Your task to perform on an android device: Check the settings for the Amazon Music app Image 0: 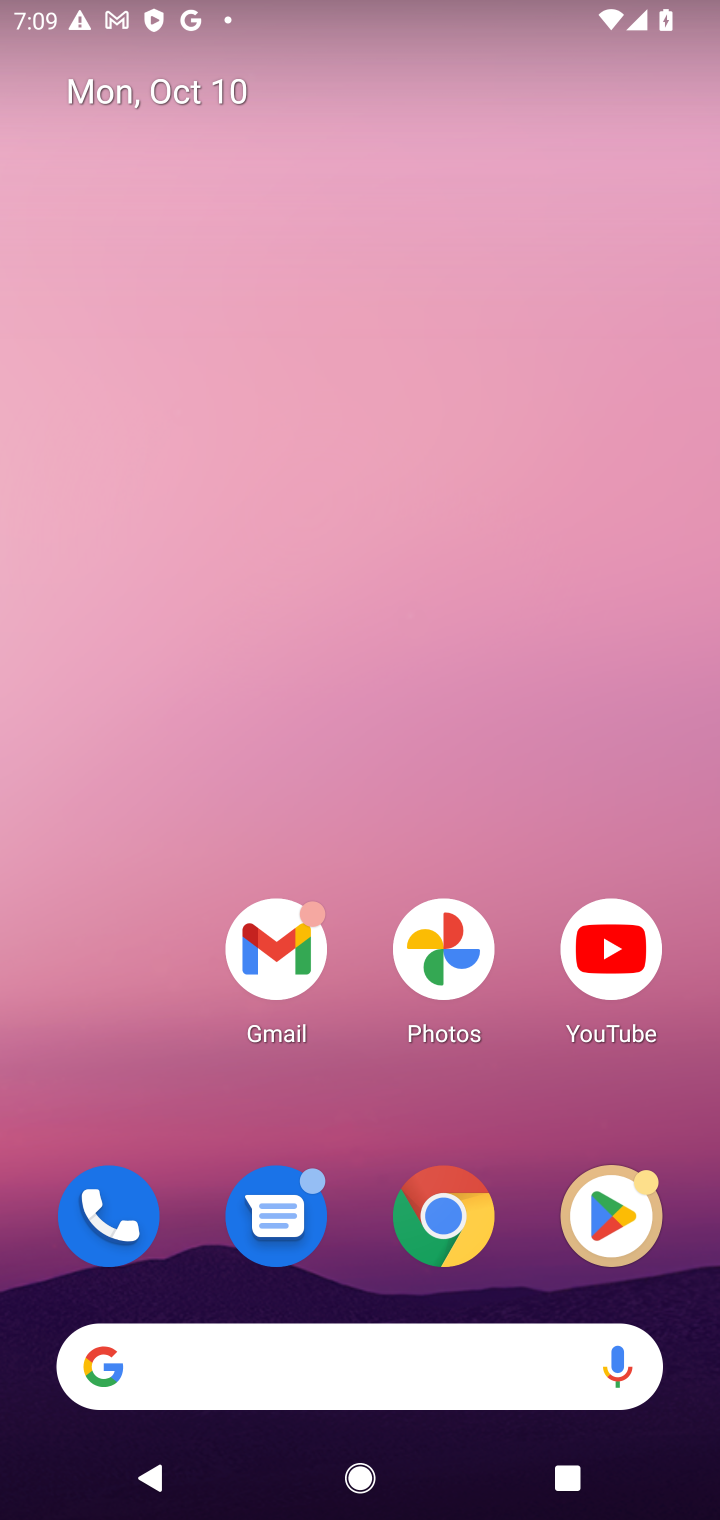
Step 0: drag from (281, 1307) to (448, 316)
Your task to perform on an android device: Check the settings for the Amazon Music app Image 1: 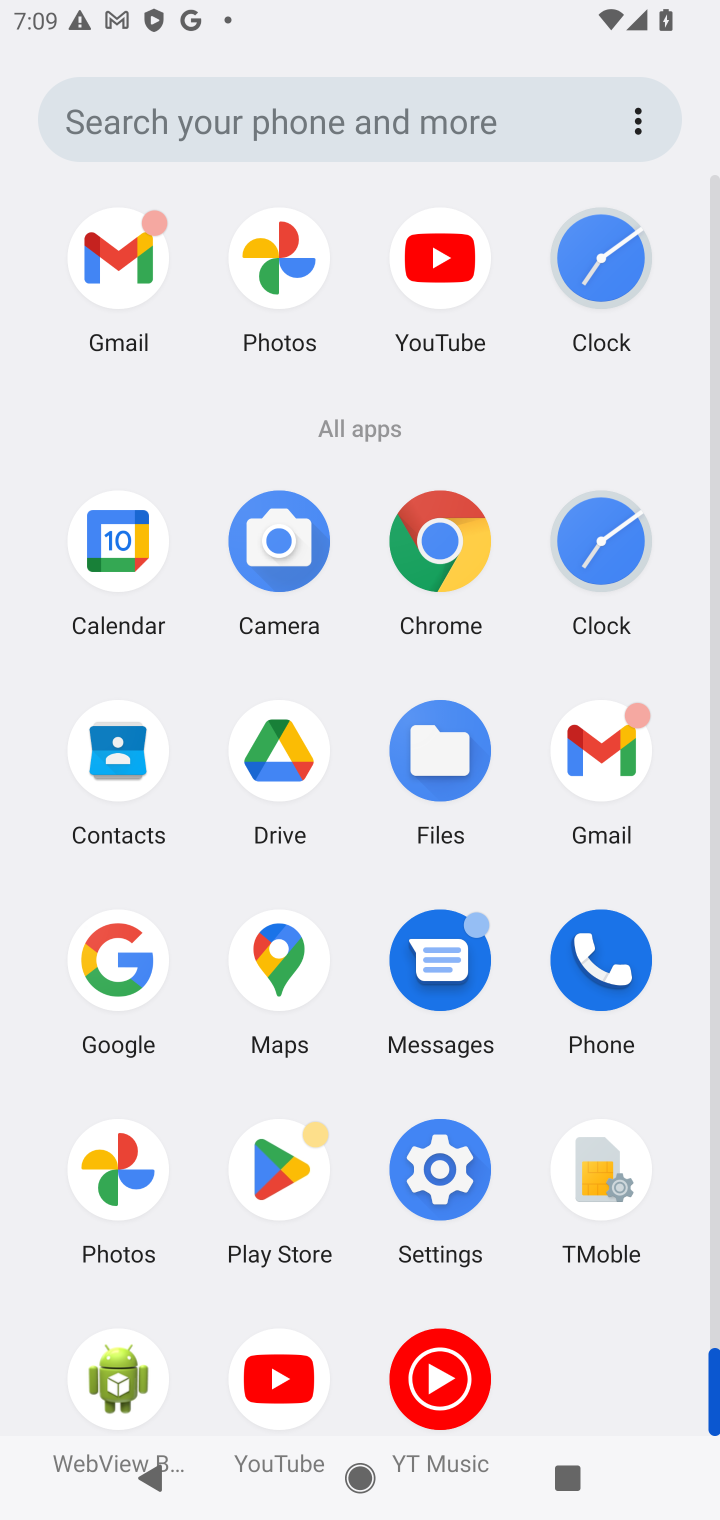
Step 1: task complete